Your task to perform on an android device: Turn on the flashlight Image 0: 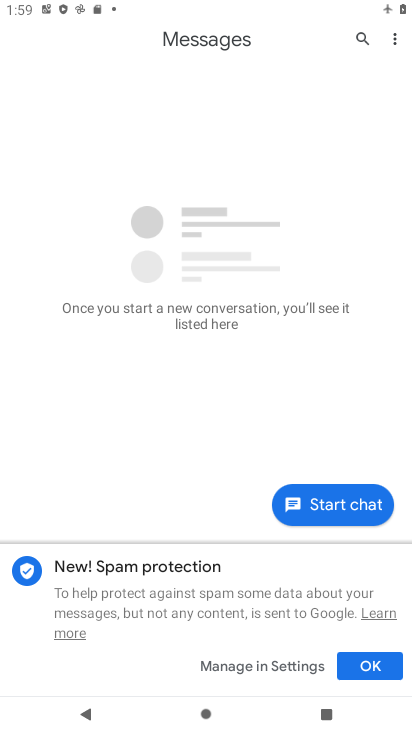
Step 0: press home button
Your task to perform on an android device: Turn on the flashlight Image 1: 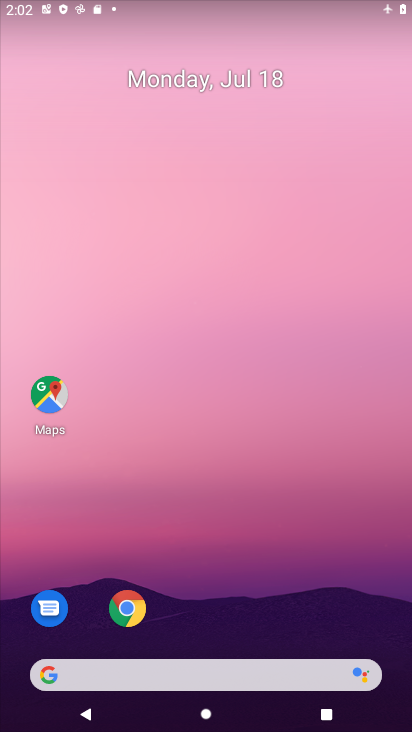
Step 1: drag from (280, 472) to (220, 2)
Your task to perform on an android device: Turn on the flashlight Image 2: 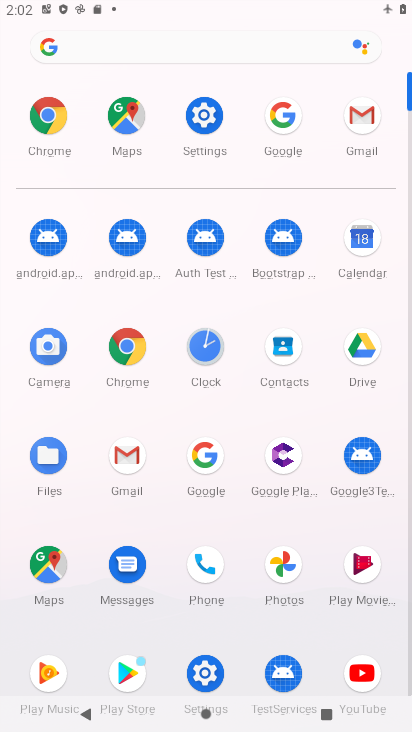
Step 2: click (193, 121)
Your task to perform on an android device: Turn on the flashlight Image 3: 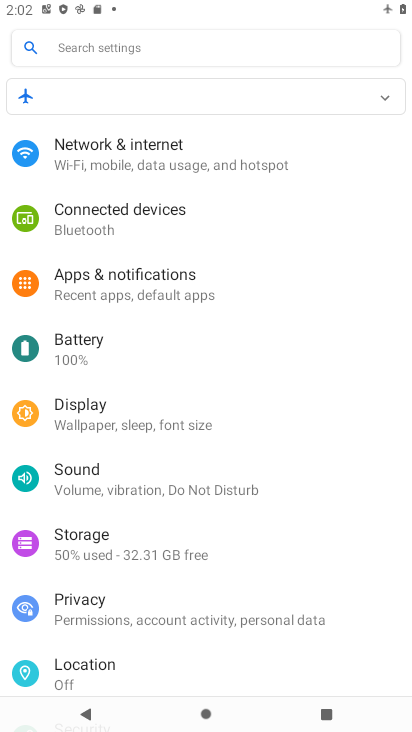
Step 3: task complete